Your task to perform on an android device: install app "Facebook Messenger" Image 0: 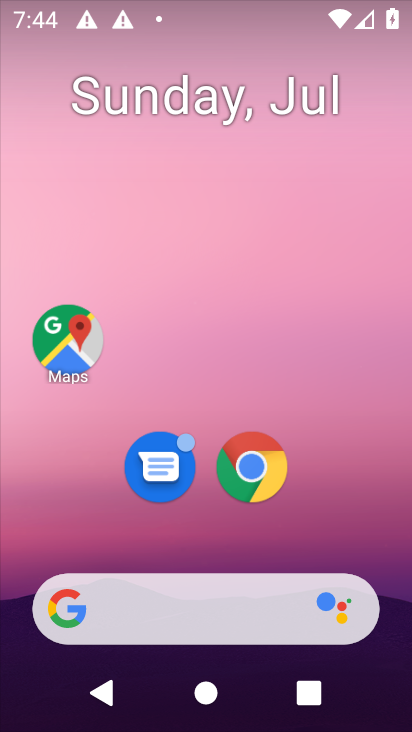
Step 0: drag from (199, 552) to (265, 233)
Your task to perform on an android device: install app "Facebook Messenger" Image 1: 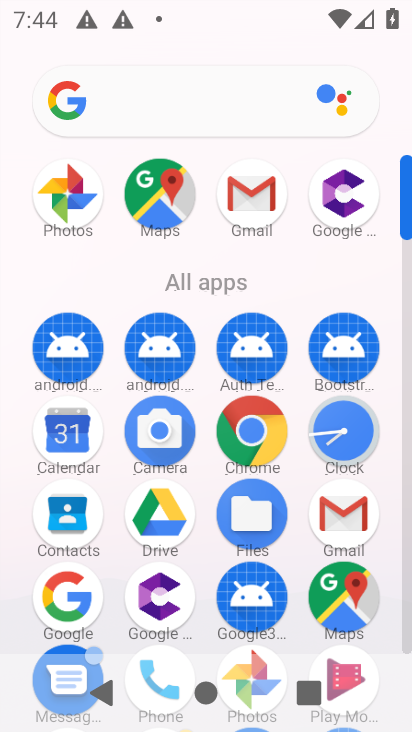
Step 1: drag from (208, 567) to (278, 198)
Your task to perform on an android device: install app "Facebook Messenger" Image 2: 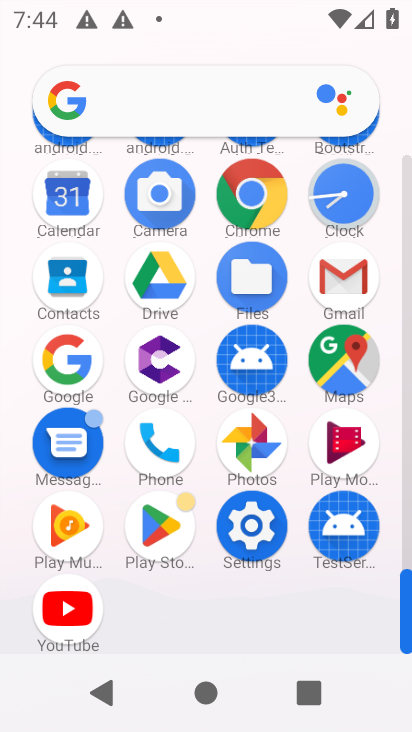
Step 2: click (151, 521)
Your task to perform on an android device: install app "Facebook Messenger" Image 3: 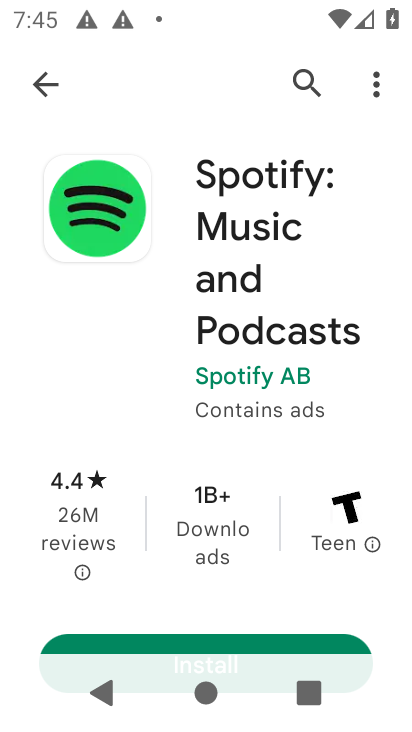
Step 3: click (310, 71)
Your task to perform on an android device: install app "Facebook Messenger" Image 4: 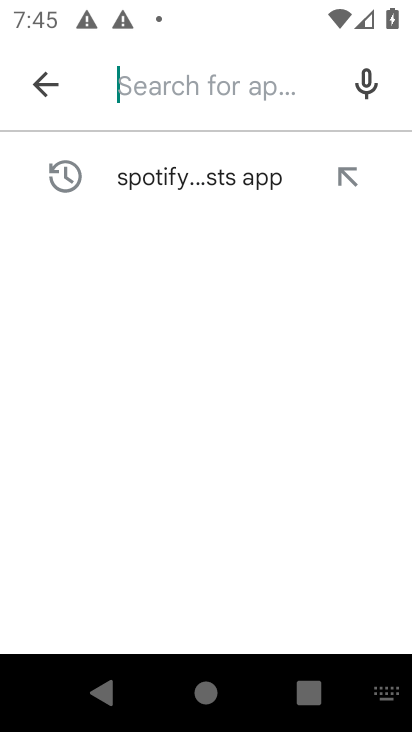
Step 4: type "Facebook Messenger"
Your task to perform on an android device: install app "Facebook Messenger" Image 5: 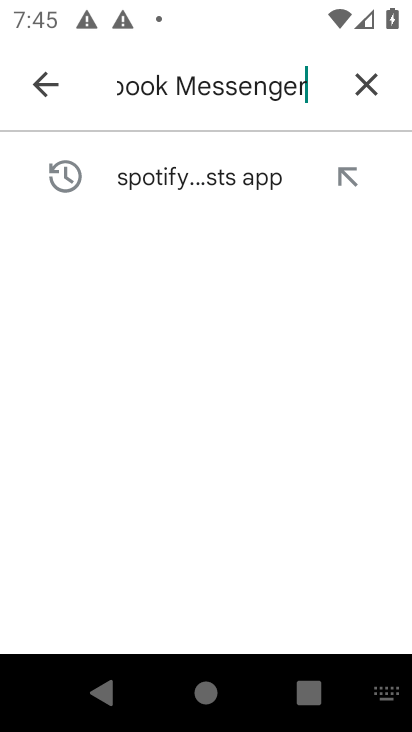
Step 5: type ""
Your task to perform on an android device: install app "Facebook Messenger" Image 6: 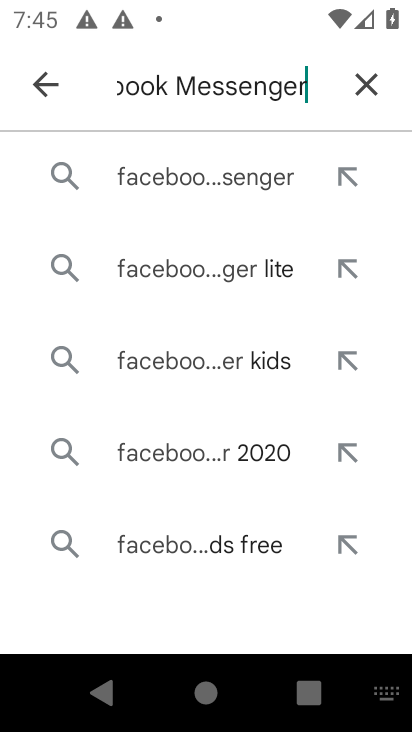
Step 6: drag from (186, 548) to (14, 0)
Your task to perform on an android device: install app "Facebook Messenger" Image 7: 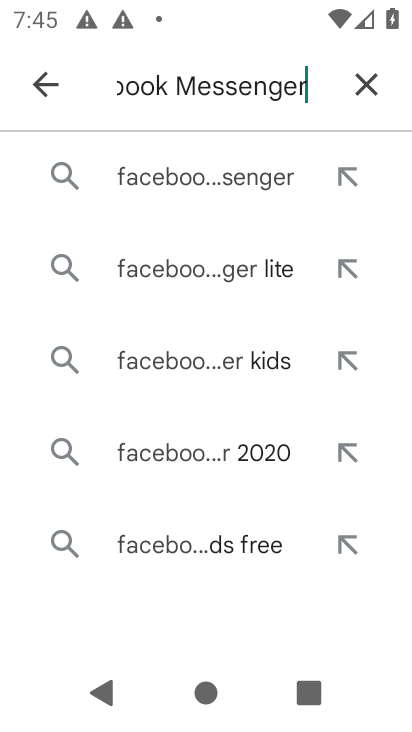
Step 7: click (140, 198)
Your task to perform on an android device: install app "Facebook Messenger" Image 8: 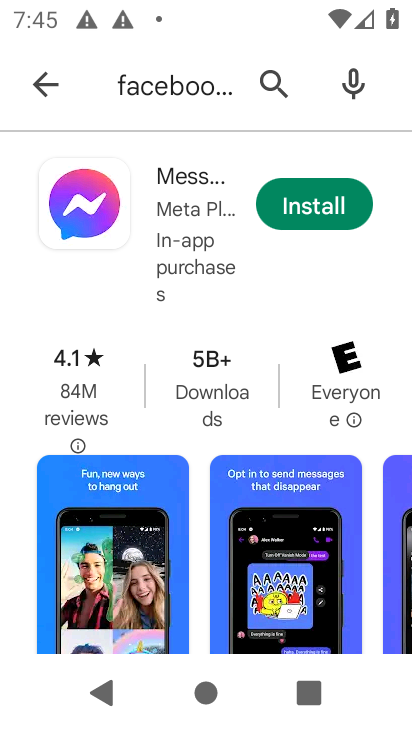
Step 8: drag from (178, 380) to (205, 149)
Your task to perform on an android device: install app "Facebook Messenger" Image 9: 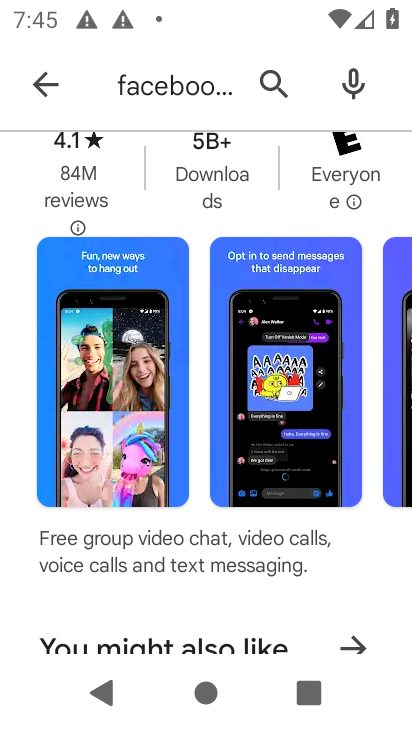
Step 9: drag from (181, 230) to (271, 718)
Your task to perform on an android device: install app "Facebook Messenger" Image 10: 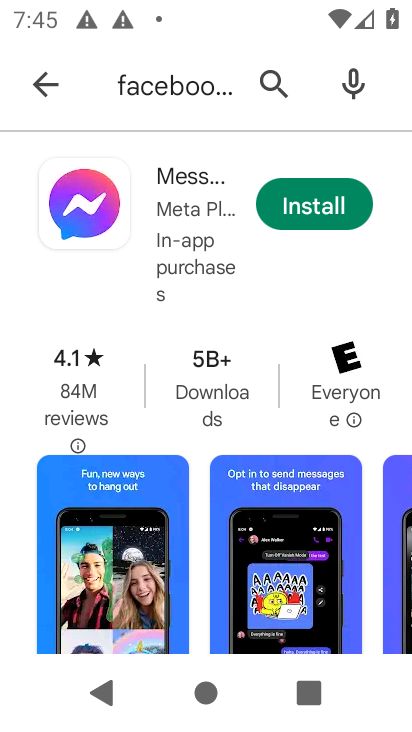
Step 10: click (92, 187)
Your task to perform on an android device: install app "Facebook Messenger" Image 11: 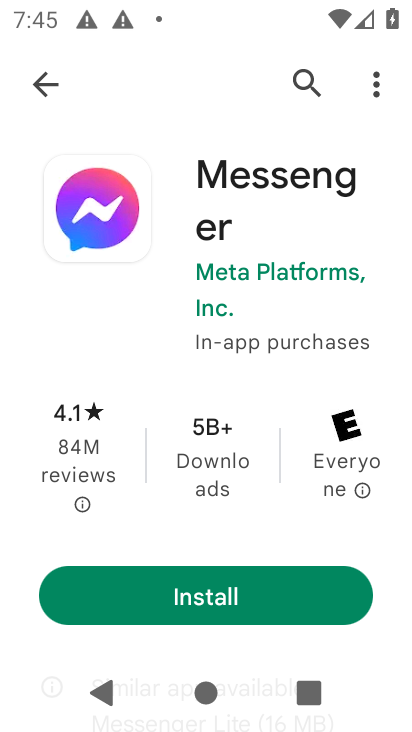
Step 11: click (177, 597)
Your task to perform on an android device: install app "Facebook Messenger" Image 12: 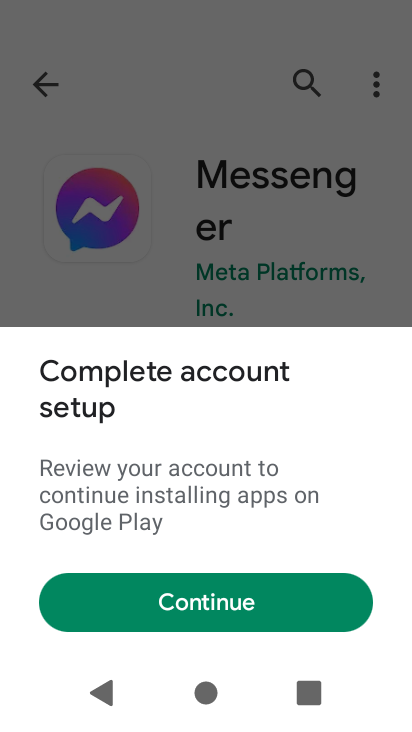
Step 12: click (180, 607)
Your task to perform on an android device: install app "Facebook Messenger" Image 13: 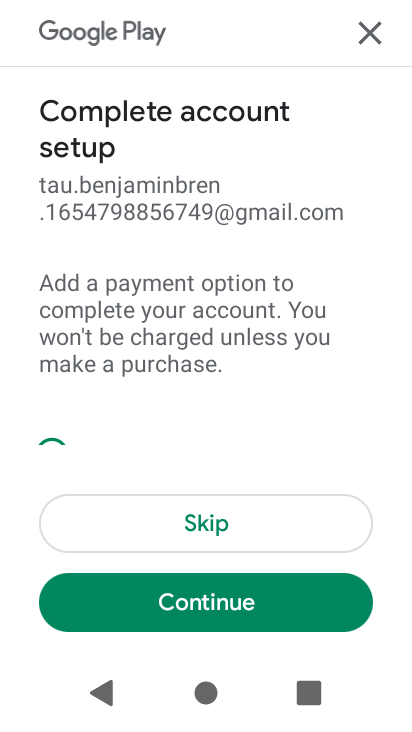
Step 13: click (208, 523)
Your task to perform on an android device: install app "Facebook Messenger" Image 14: 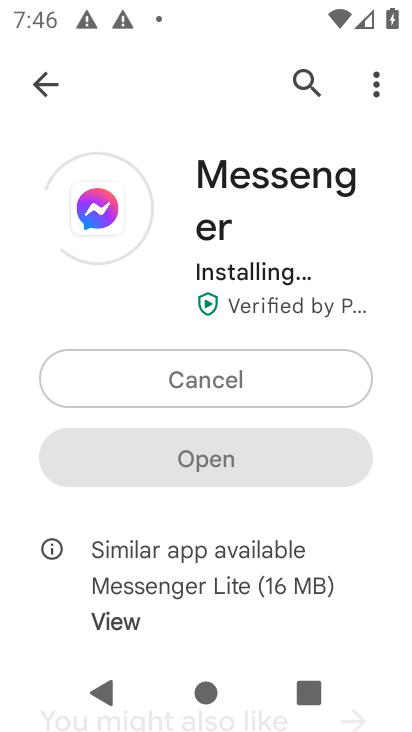
Step 14: task complete